Your task to perform on an android device: change timer sound Image 0: 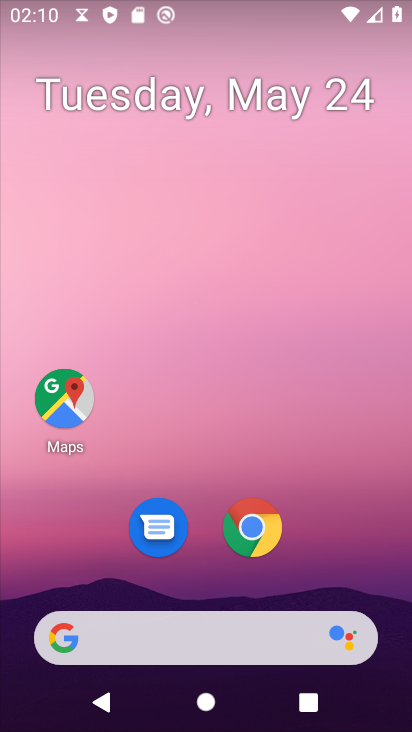
Step 0: press home button
Your task to perform on an android device: change timer sound Image 1: 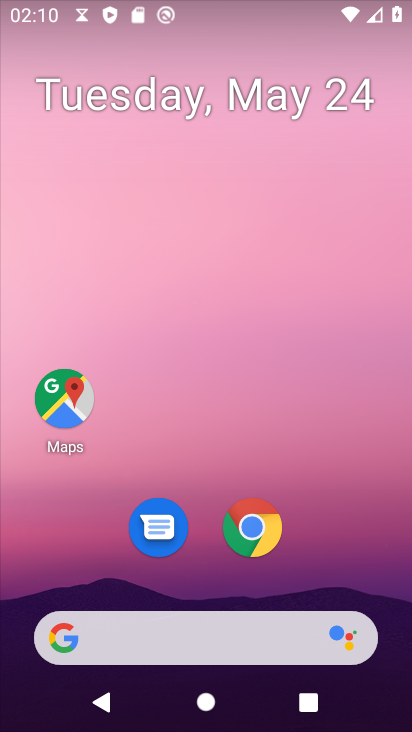
Step 1: drag from (189, 634) to (323, 149)
Your task to perform on an android device: change timer sound Image 2: 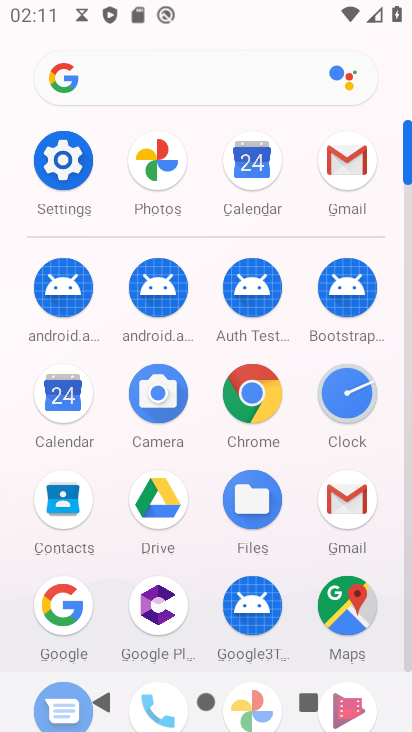
Step 2: click (349, 403)
Your task to perform on an android device: change timer sound Image 3: 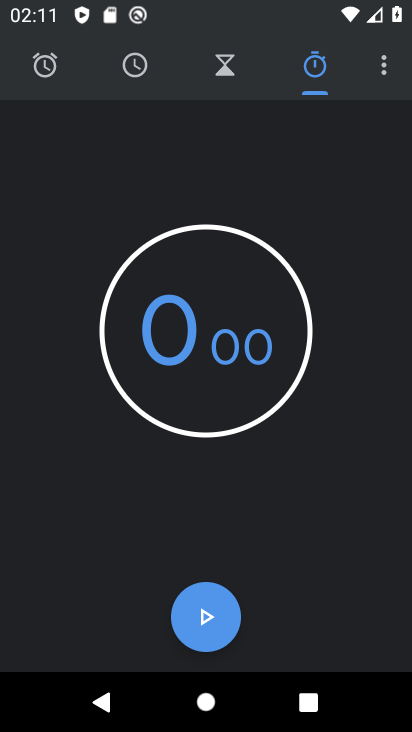
Step 3: click (383, 64)
Your task to perform on an android device: change timer sound Image 4: 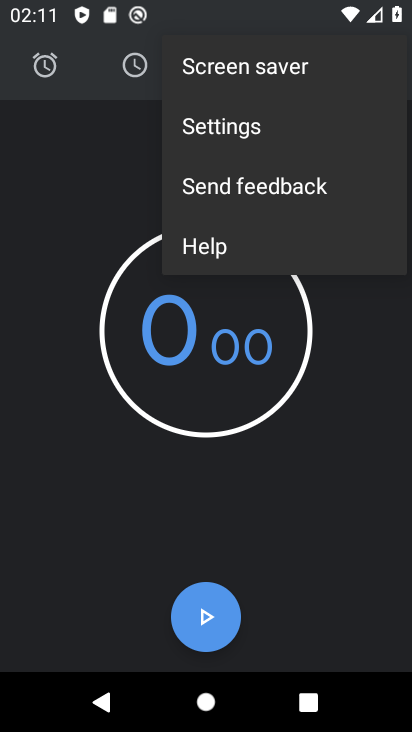
Step 4: click (229, 137)
Your task to perform on an android device: change timer sound Image 5: 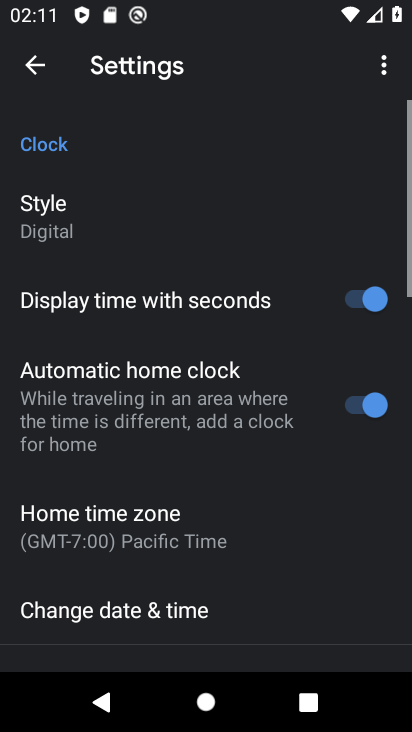
Step 5: drag from (289, 424) to (348, 42)
Your task to perform on an android device: change timer sound Image 6: 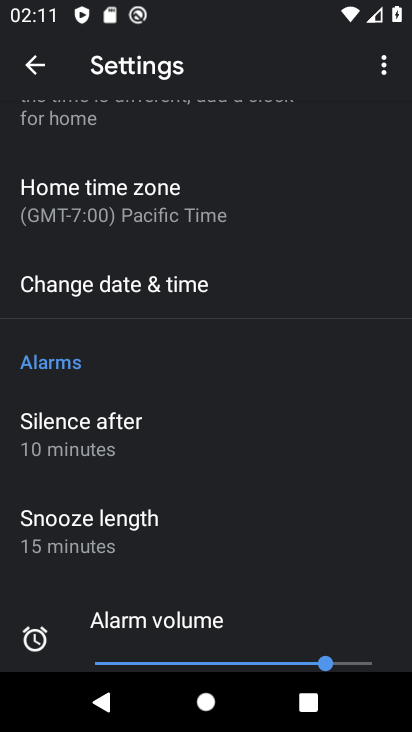
Step 6: drag from (258, 532) to (330, 72)
Your task to perform on an android device: change timer sound Image 7: 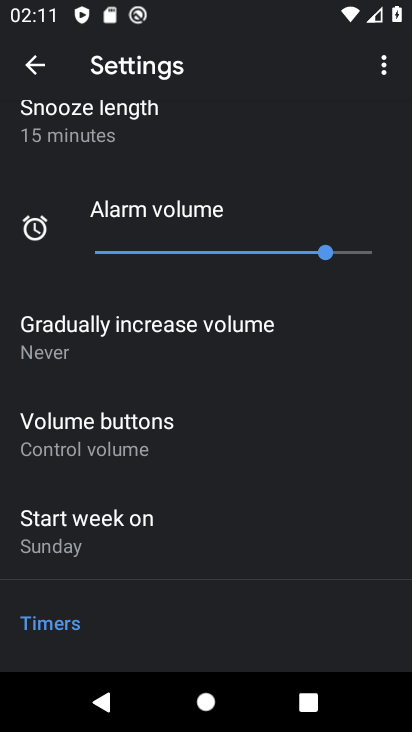
Step 7: drag from (158, 579) to (257, 276)
Your task to perform on an android device: change timer sound Image 8: 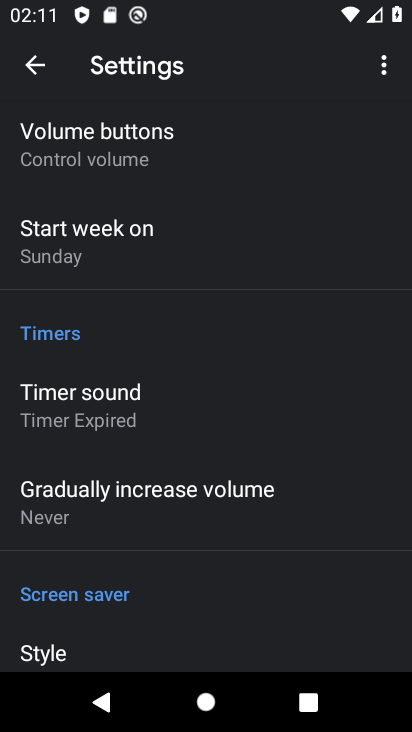
Step 8: click (118, 424)
Your task to perform on an android device: change timer sound Image 9: 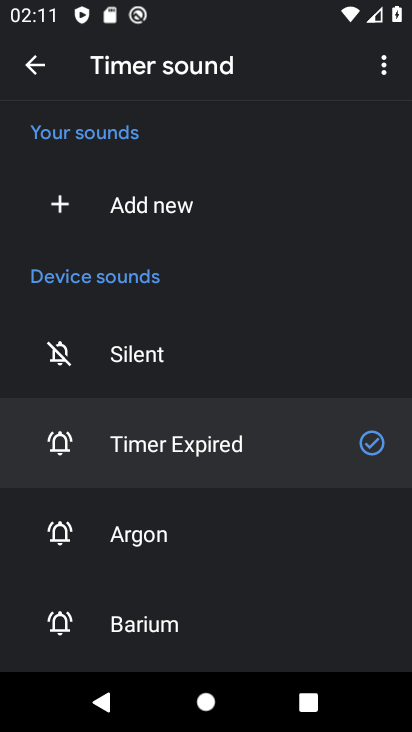
Step 9: click (145, 548)
Your task to perform on an android device: change timer sound Image 10: 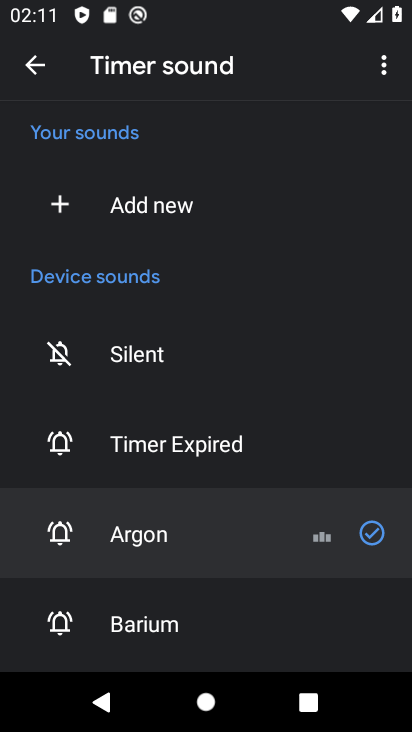
Step 10: task complete